Your task to perform on an android device: turn off data saver in the chrome app Image 0: 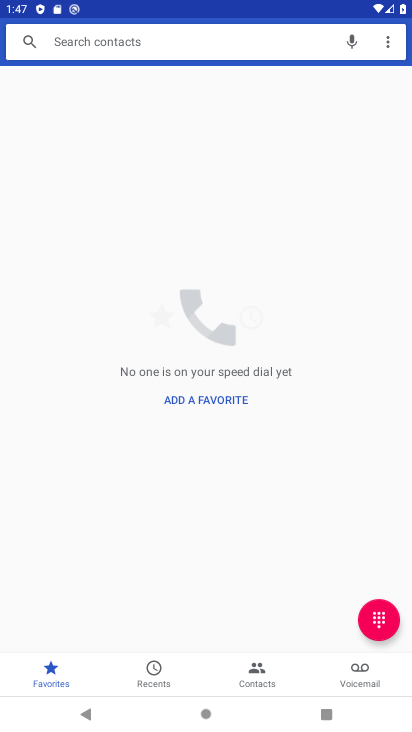
Step 0: press home button
Your task to perform on an android device: turn off data saver in the chrome app Image 1: 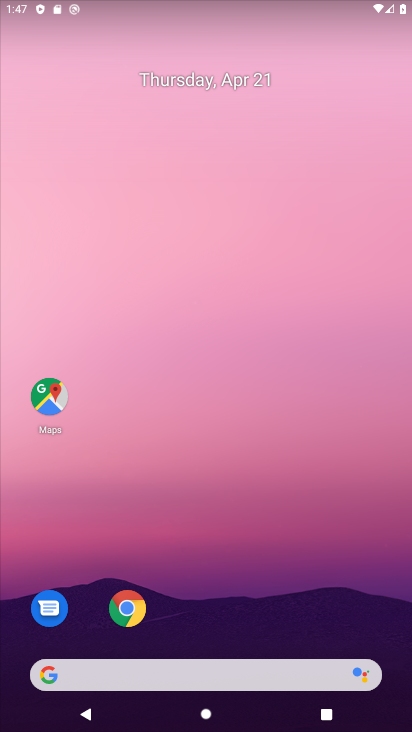
Step 1: drag from (284, 530) to (411, 104)
Your task to perform on an android device: turn off data saver in the chrome app Image 2: 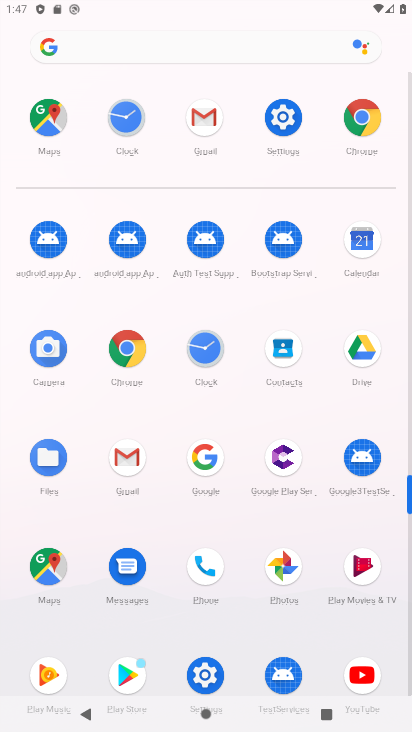
Step 2: click (352, 110)
Your task to perform on an android device: turn off data saver in the chrome app Image 3: 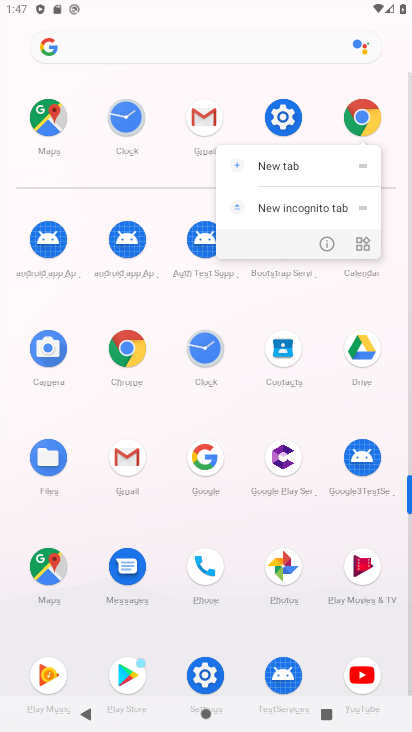
Step 3: click (359, 120)
Your task to perform on an android device: turn off data saver in the chrome app Image 4: 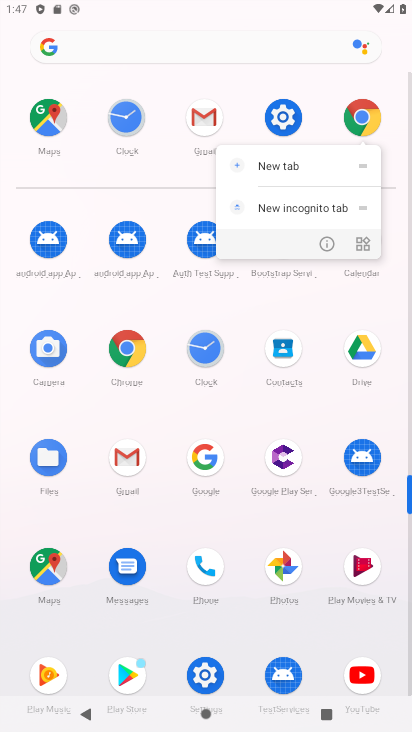
Step 4: click (359, 119)
Your task to perform on an android device: turn off data saver in the chrome app Image 5: 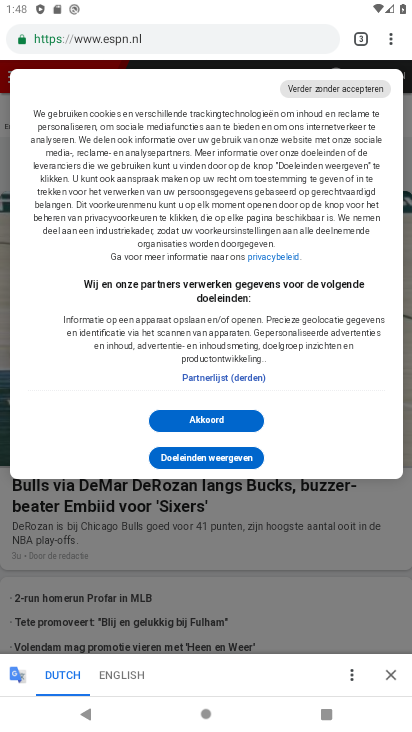
Step 5: drag from (387, 42) to (245, 473)
Your task to perform on an android device: turn off data saver in the chrome app Image 6: 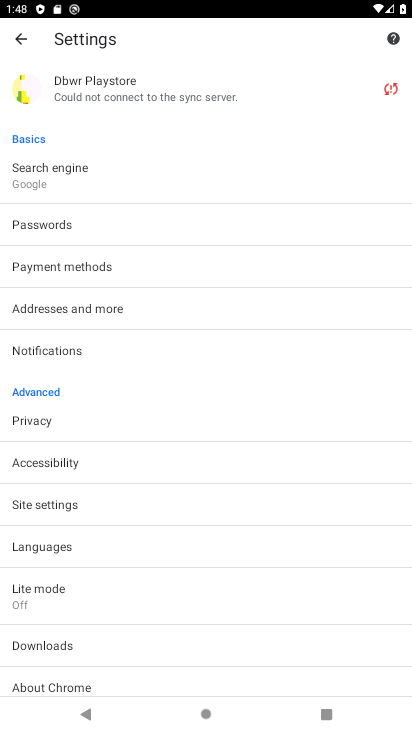
Step 6: click (74, 591)
Your task to perform on an android device: turn off data saver in the chrome app Image 7: 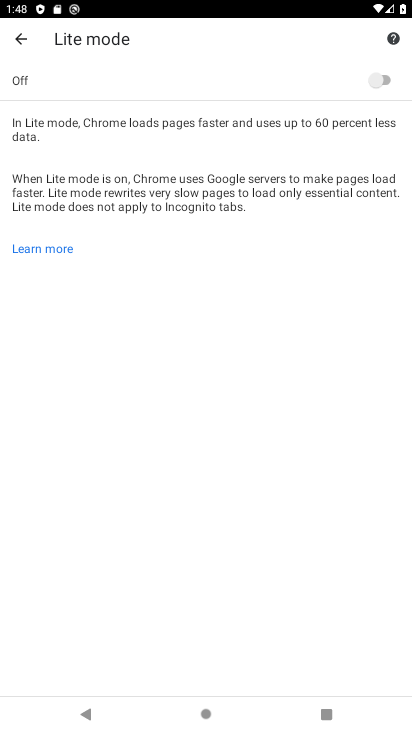
Step 7: click (386, 81)
Your task to perform on an android device: turn off data saver in the chrome app Image 8: 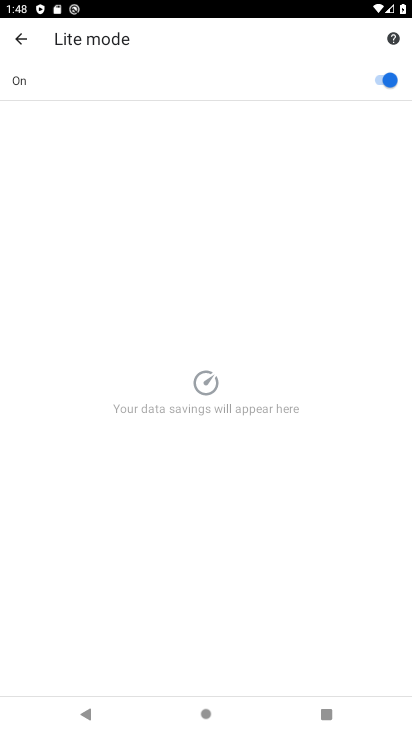
Step 8: task complete